Your task to perform on an android device: turn off location Image 0: 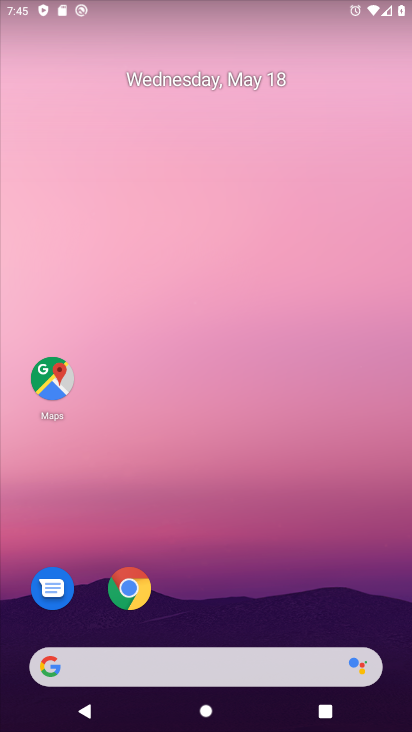
Step 0: drag from (228, 614) to (257, 257)
Your task to perform on an android device: turn off location Image 1: 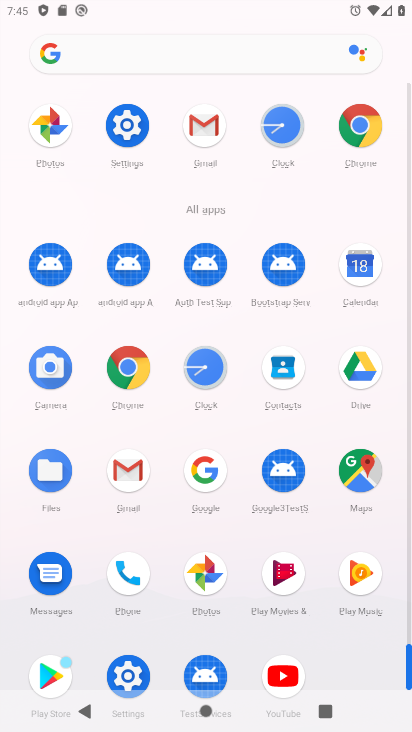
Step 1: click (135, 141)
Your task to perform on an android device: turn off location Image 2: 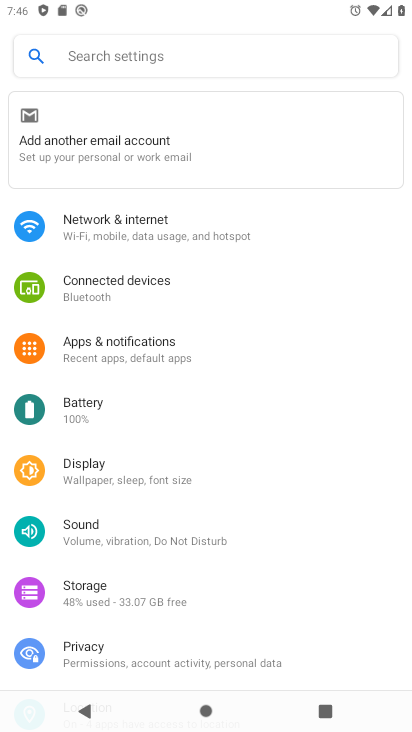
Step 2: drag from (108, 593) to (138, 338)
Your task to perform on an android device: turn off location Image 3: 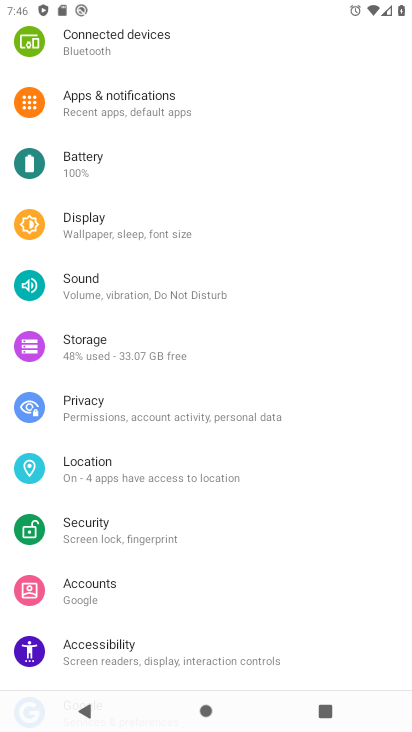
Step 3: click (116, 461)
Your task to perform on an android device: turn off location Image 4: 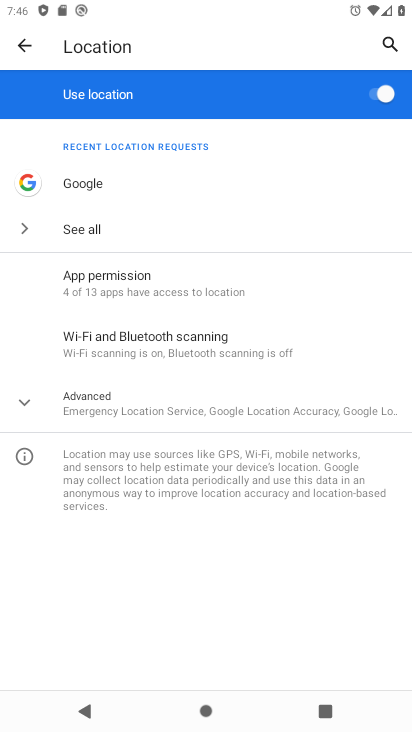
Step 4: click (345, 93)
Your task to perform on an android device: turn off location Image 5: 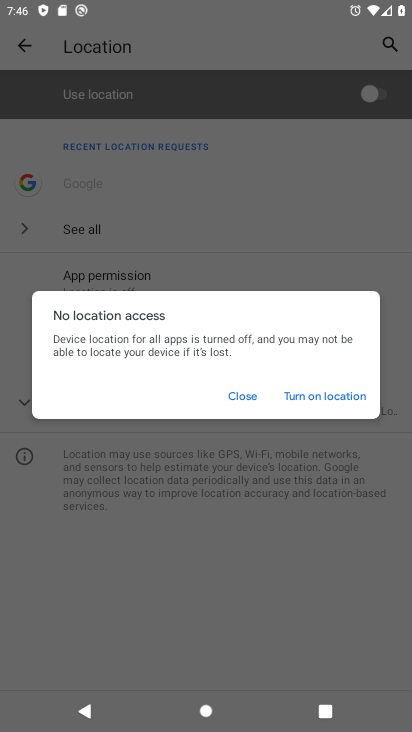
Step 5: click (237, 402)
Your task to perform on an android device: turn off location Image 6: 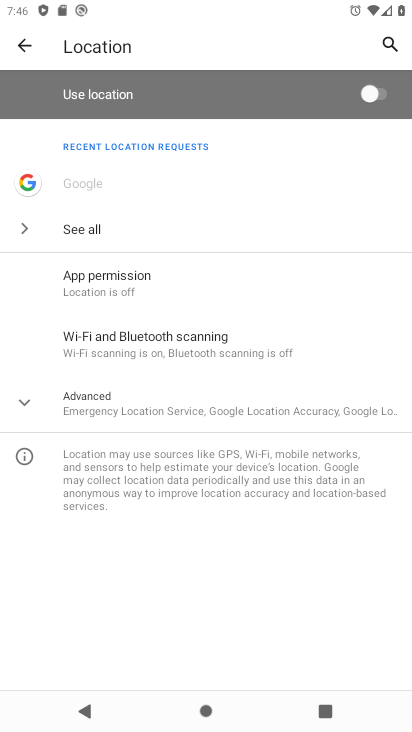
Step 6: task complete